Your task to perform on an android device: clear history in the chrome app Image 0: 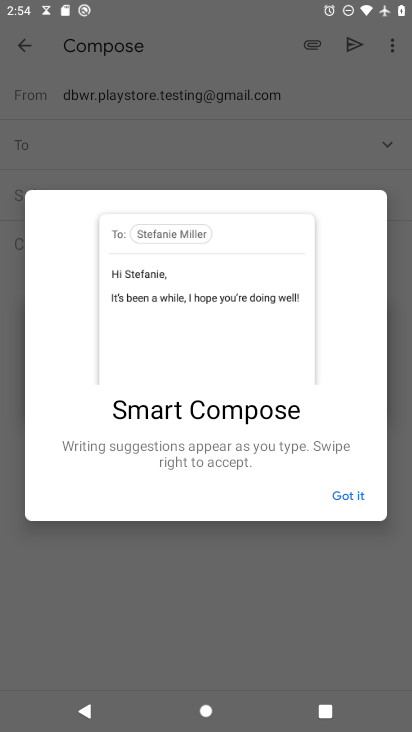
Step 0: press home button
Your task to perform on an android device: clear history in the chrome app Image 1: 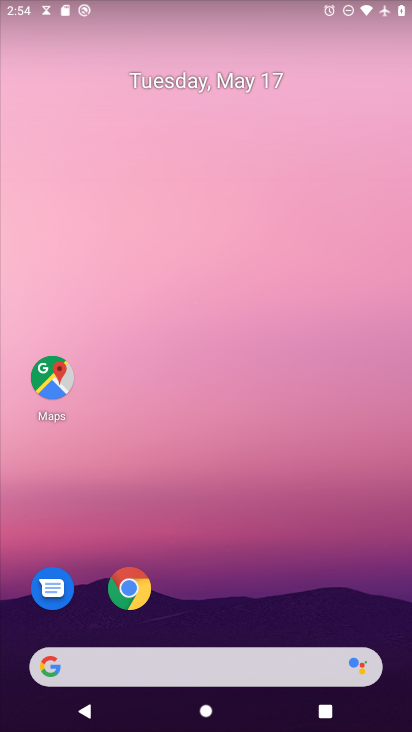
Step 1: drag from (174, 467) to (159, 201)
Your task to perform on an android device: clear history in the chrome app Image 2: 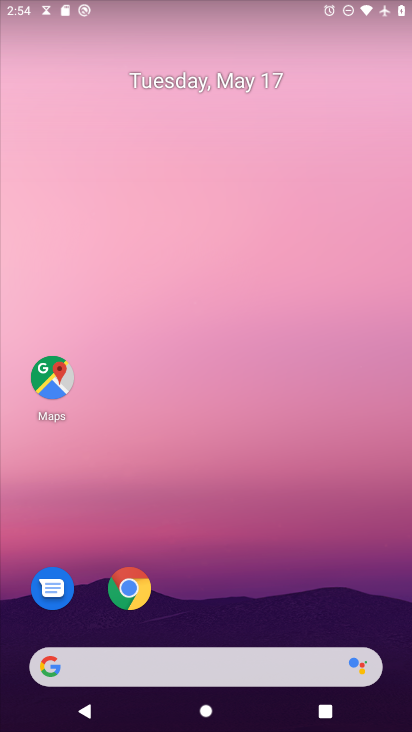
Step 2: drag from (188, 621) to (184, 107)
Your task to perform on an android device: clear history in the chrome app Image 3: 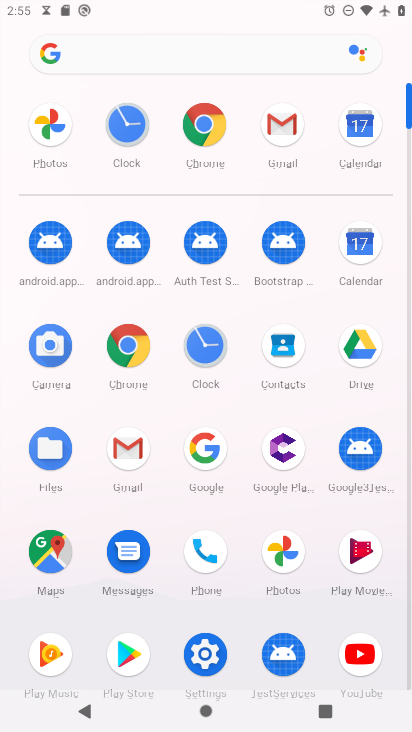
Step 3: click (114, 349)
Your task to perform on an android device: clear history in the chrome app Image 4: 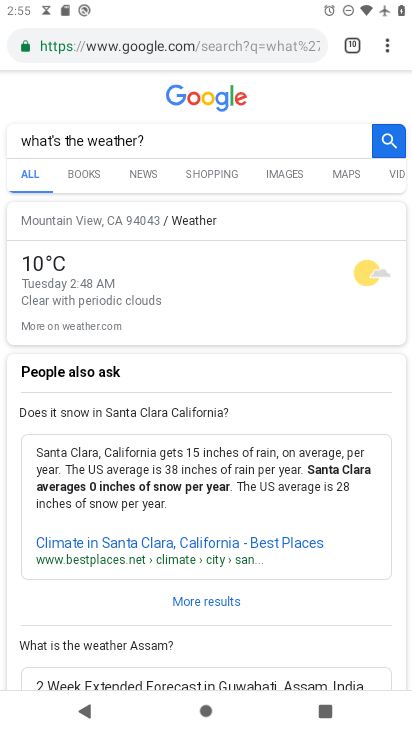
Step 4: click (384, 41)
Your task to perform on an android device: clear history in the chrome app Image 5: 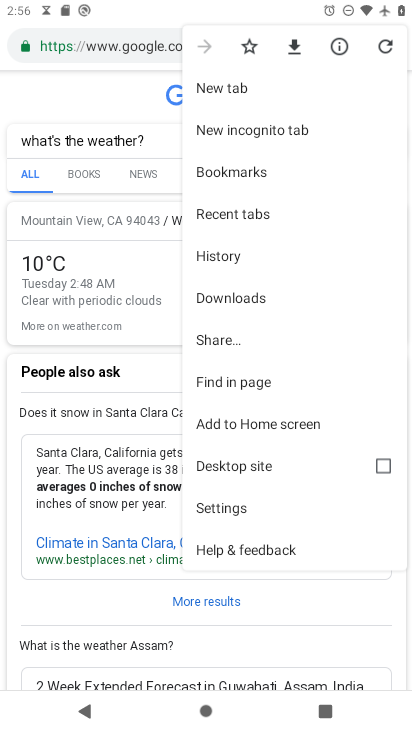
Step 5: click (209, 263)
Your task to perform on an android device: clear history in the chrome app Image 6: 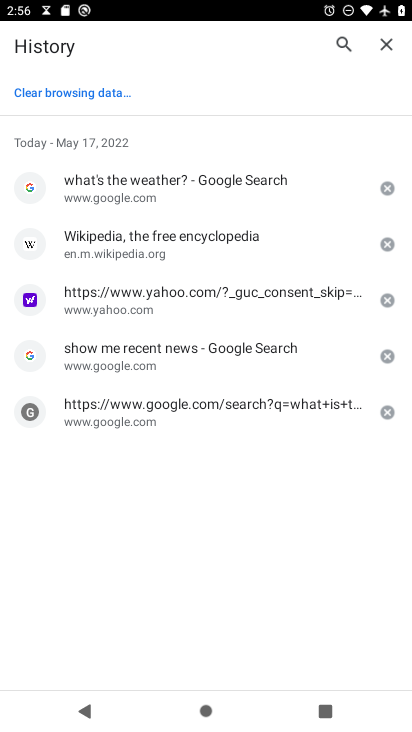
Step 6: click (76, 95)
Your task to perform on an android device: clear history in the chrome app Image 7: 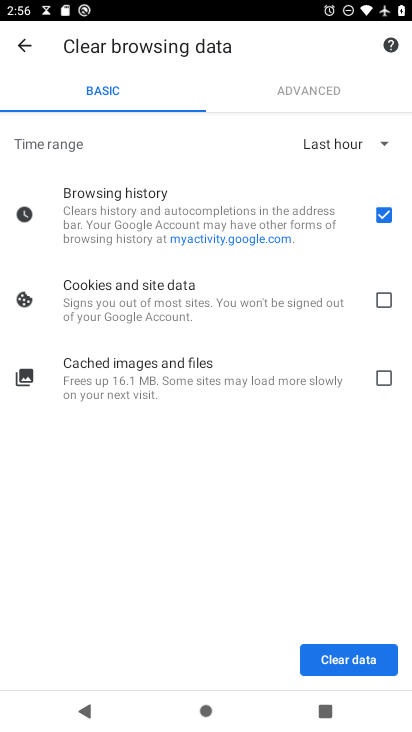
Step 7: click (346, 662)
Your task to perform on an android device: clear history in the chrome app Image 8: 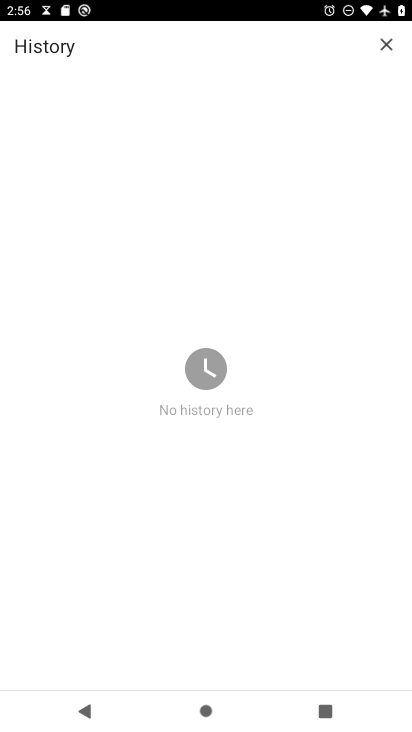
Step 8: task complete